Your task to perform on an android device: toggle javascript in the chrome app Image 0: 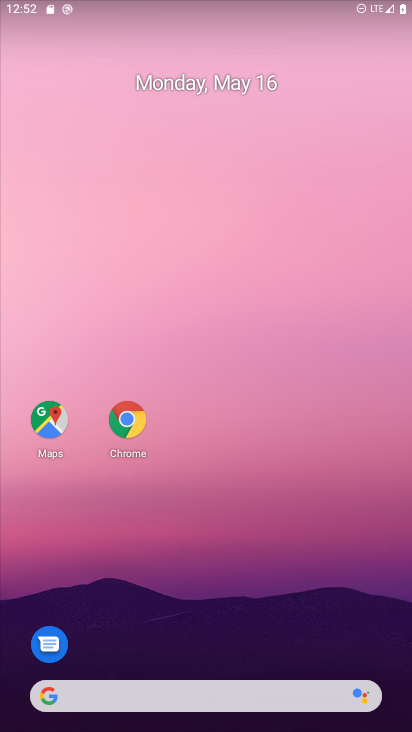
Step 0: drag from (207, 646) to (0, 2)
Your task to perform on an android device: toggle javascript in the chrome app Image 1: 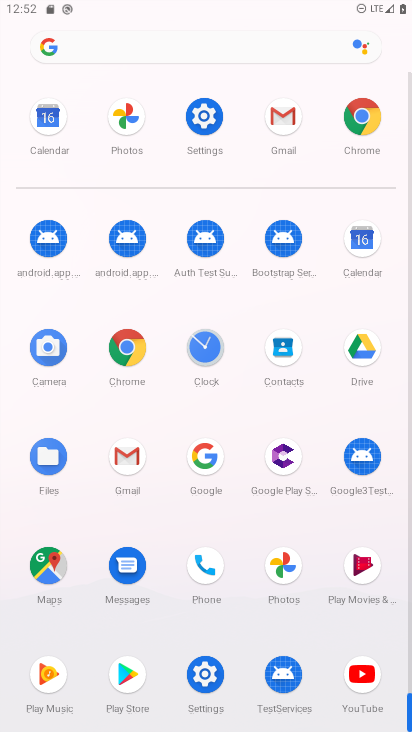
Step 1: drag from (216, 634) to (202, 294)
Your task to perform on an android device: toggle javascript in the chrome app Image 2: 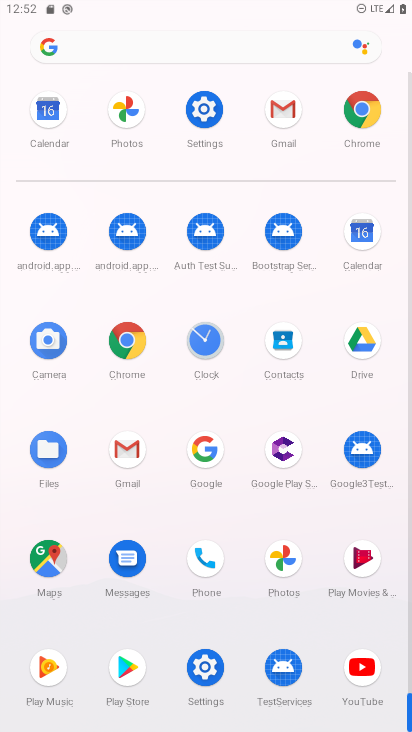
Step 2: click (128, 341)
Your task to perform on an android device: toggle javascript in the chrome app Image 3: 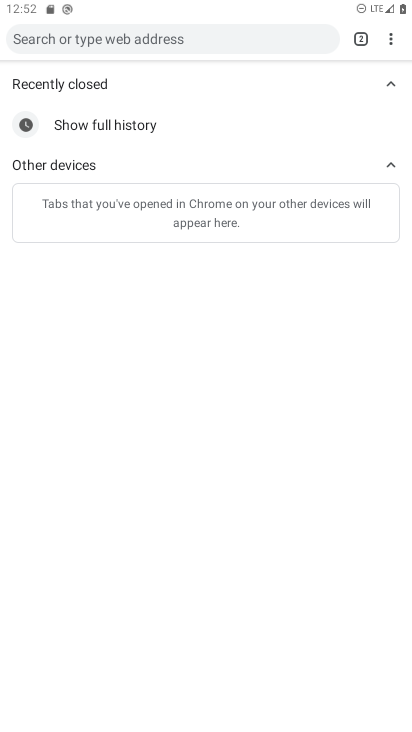
Step 3: click (393, 28)
Your task to perform on an android device: toggle javascript in the chrome app Image 4: 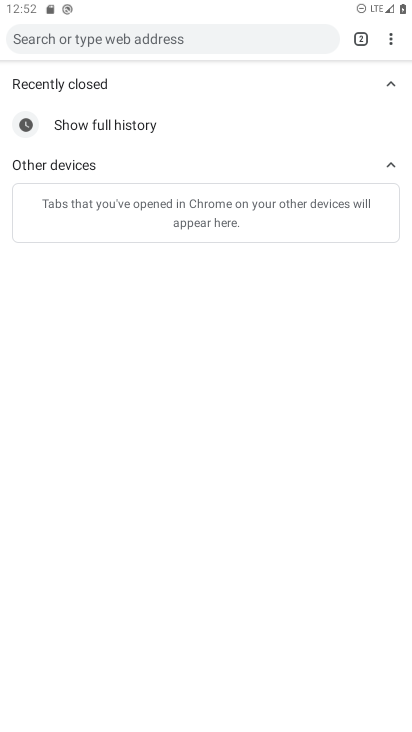
Step 4: drag from (392, 29) to (289, 326)
Your task to perform on an android device: toggle javascript in the chrome app Image 5: 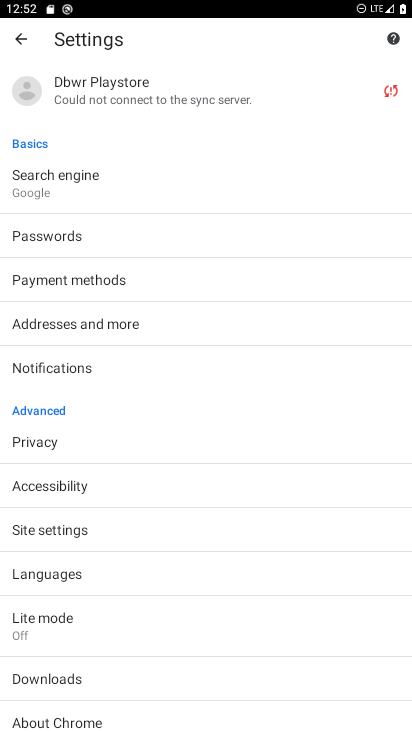
Step 5: click (82, 535)
Your task to perform on an android device: toggle javascript in the chrome app Image 6: 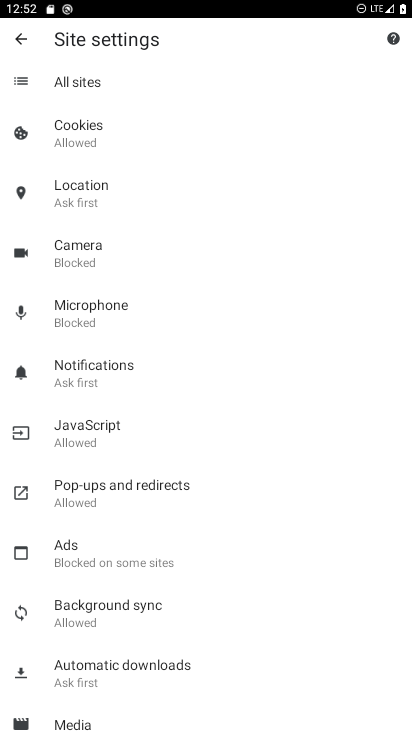
Step 6: click (128, 435)
Your task to perform on an android device: toggle javascript in the chrome app Image 7: 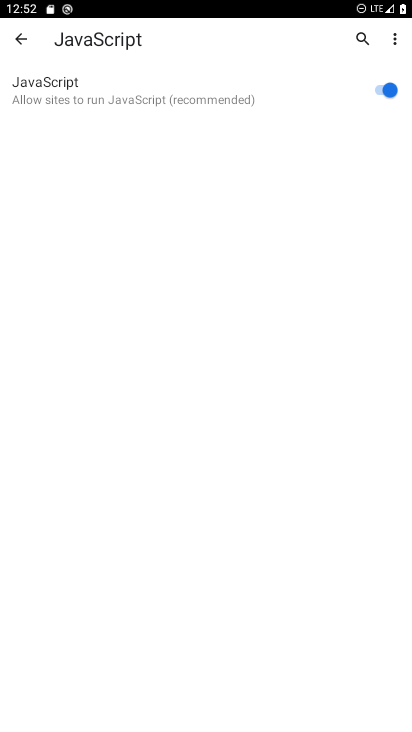
Step 7: click (386, 80)
Your task to perform on an android device: toggle javascript in the chrome app Image 8: 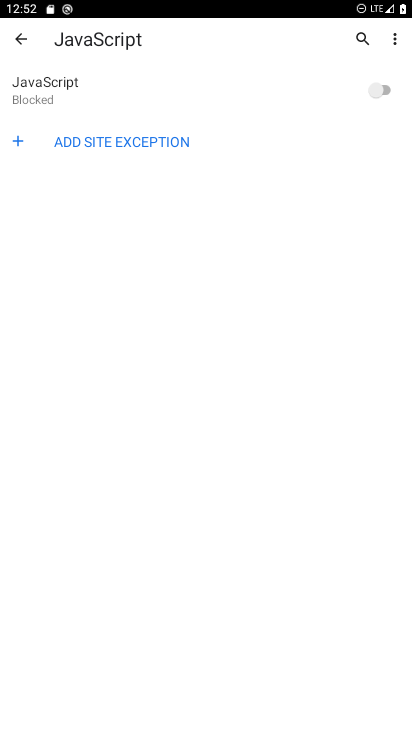
Step 8: task complete